Your task to perform on an android device: Go to CNN.com Image 0: 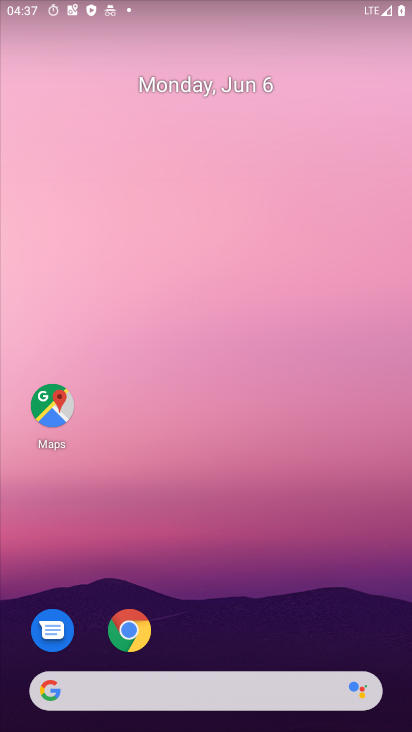
Step 0: drag from (230, 631) to (232, 6)
Your task to perform on an android device: Go to CNN.com Image 1: 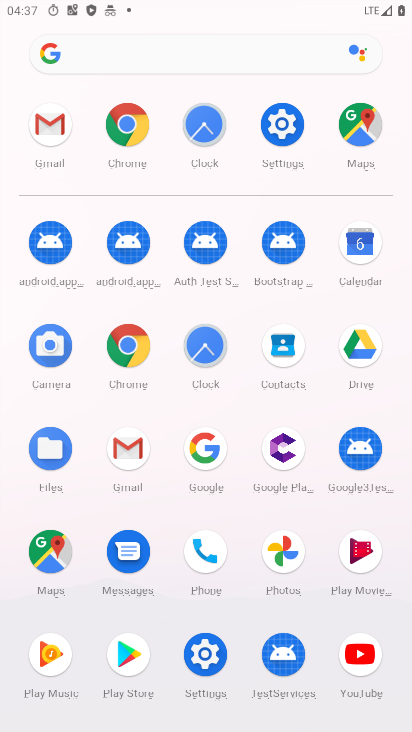
Step 1: click (127, 343)
Your task to perform on an android device: Go to CNN.com Image 2: 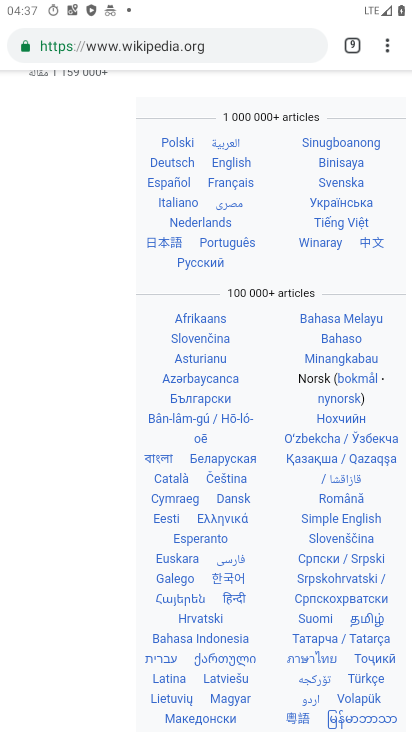
Step 2: click (211, 41)
Your task to perform on an android device: Go to CNN.com Image 3: 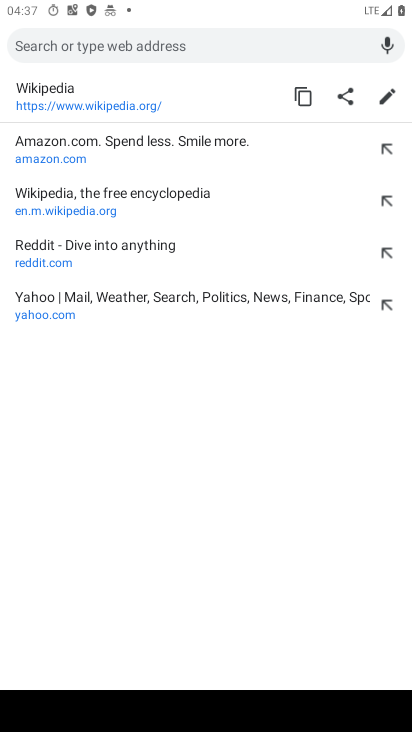
Step 3: type "CNN.com"
Your task to perform on an android device: Go to CNN.com Image 4: 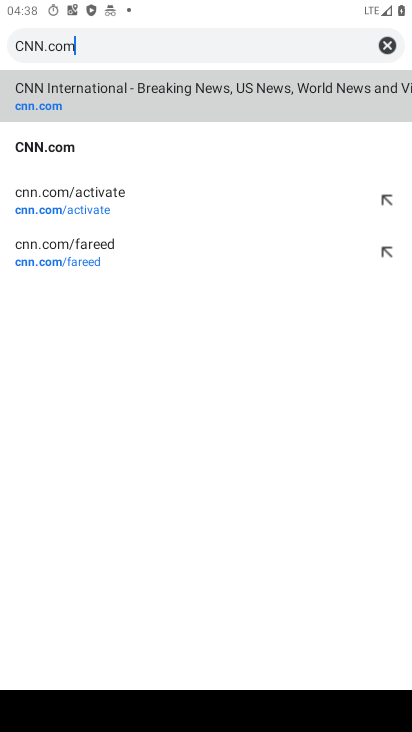
Step 4: click (43, 105)
Your task to perform on an android device: Go to CNN.com Image 5: 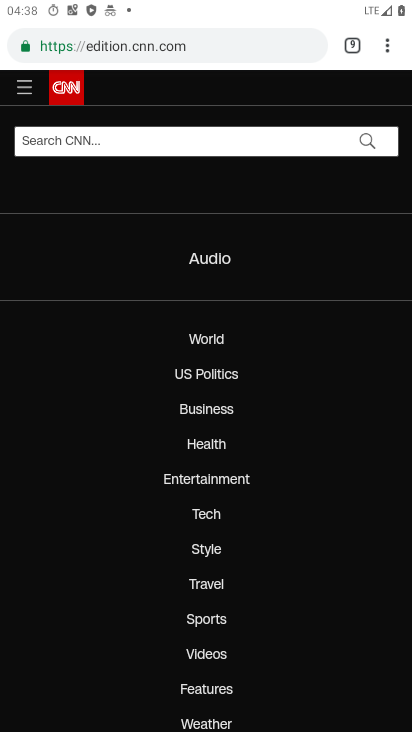
Step 5: task complete